Your task to perform on an android device: toggle sleep mode Image 0: 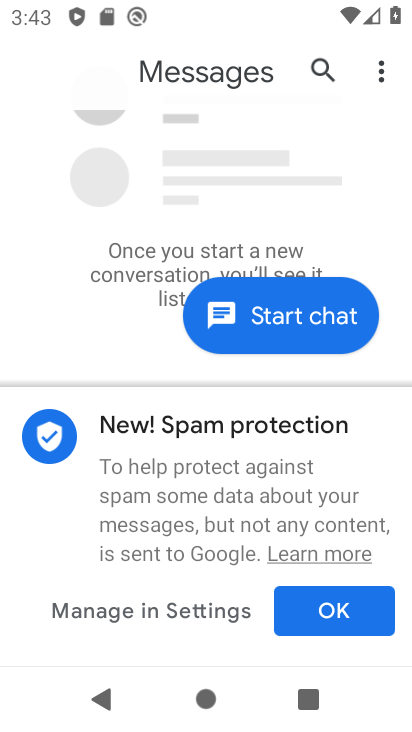
Step 0: press home button
Your task to perform on an android device: toggle sleep mode Image 1: 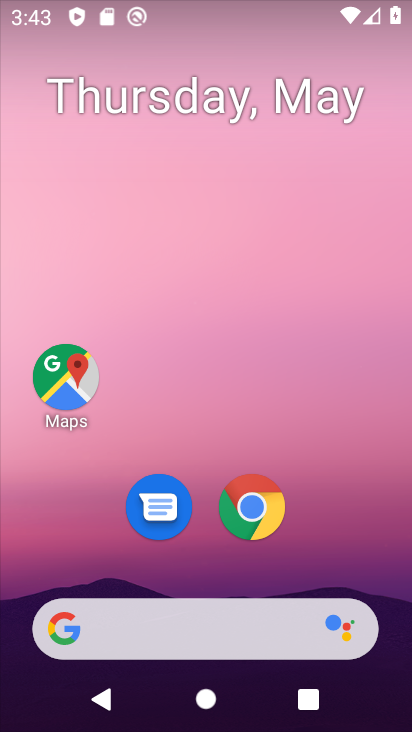
Step 1: drag from (327, 568) to (272, 66)
Your task to perform on an android device: toggle sleep mode Image 2: 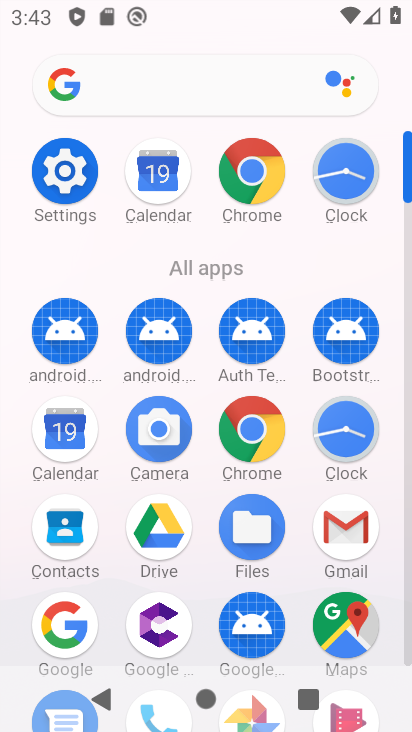
Step 2: click (67, 174)
Your task to perform on an android device: toggle sleep mode Image 3: 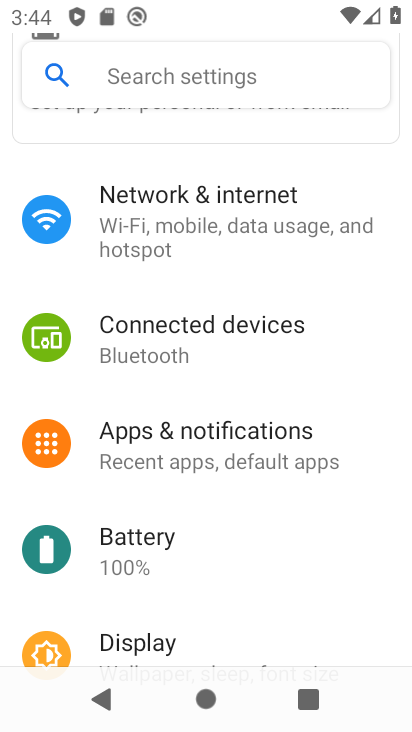
Step 3: drag from (187, 571) to (163, 343)
Your task to perform on an android device: toggle sleep mode Image 4: 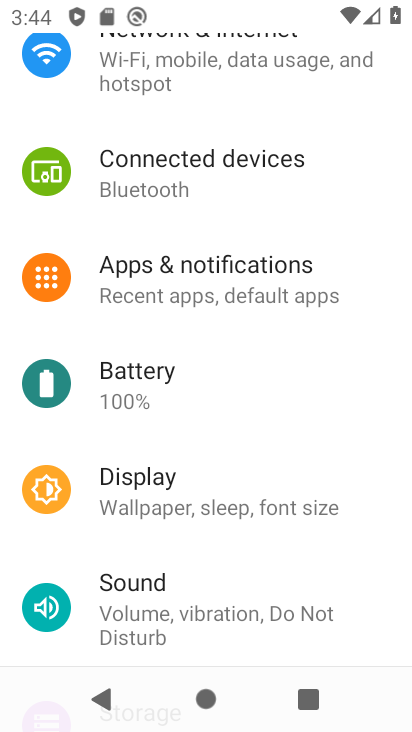
Step 4: click (169, 514)
Your task to perform on an android device: toggle sleep mode Image 5: 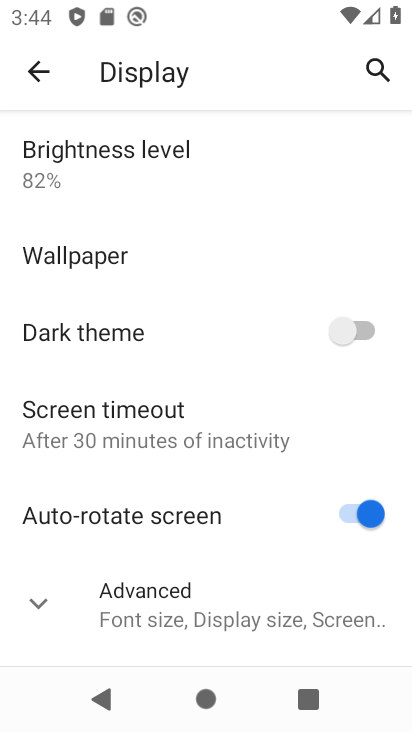
Step 5: click (192, 619)
Your task to perform on an android device: toggle sleep mode Image 6: 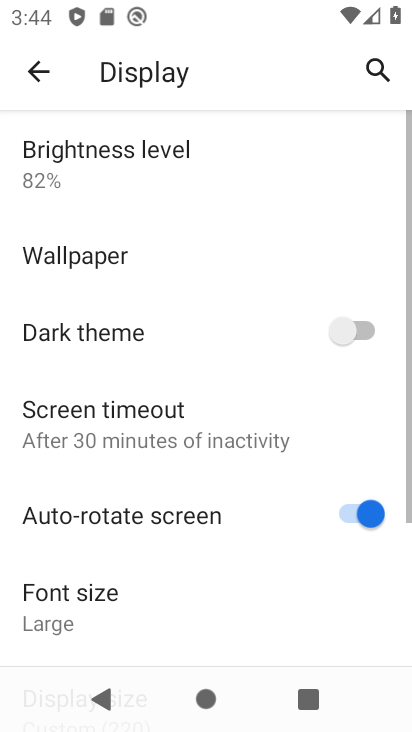
Step 6: drag from (190, 599) to (192, 294)
Your task to perform on an android device: toggle sleep mode Image 7: 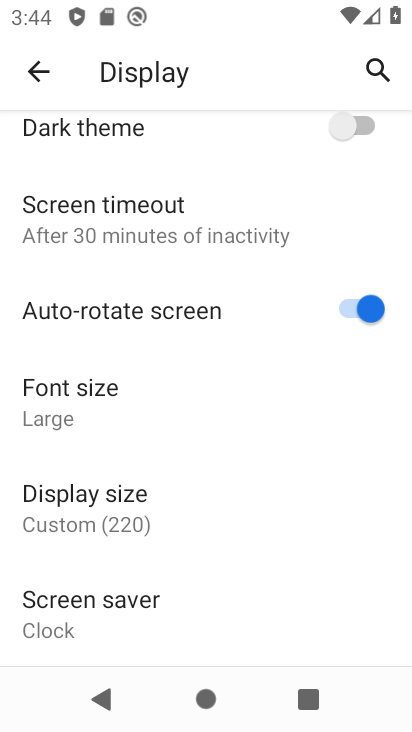
Step 7: click (43, 79)
Your task to perform on an android device: toggle sleep mode Image 8: 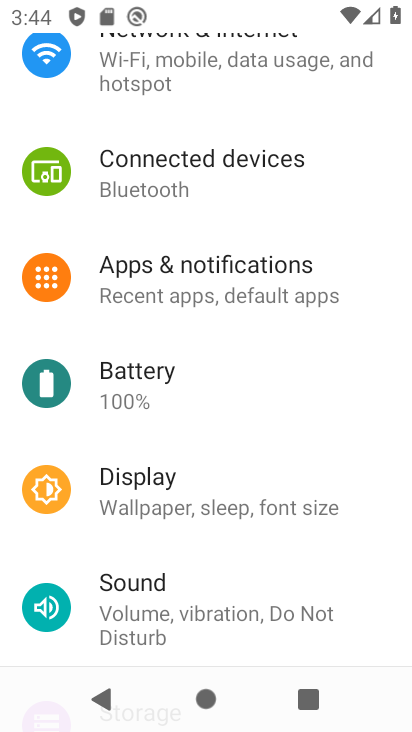
Step 8: task complete